Your task to perform on an android device: Open accessibility settings Image 0: 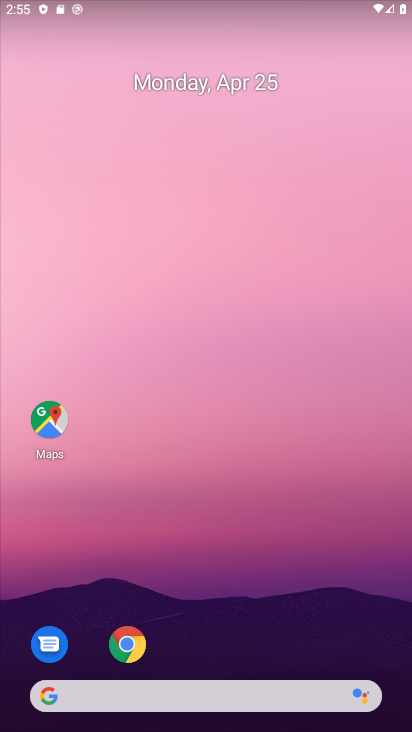
Step 0: click (138, 648)
Your task to perform on an android device: Open accessibility settings Image 1: 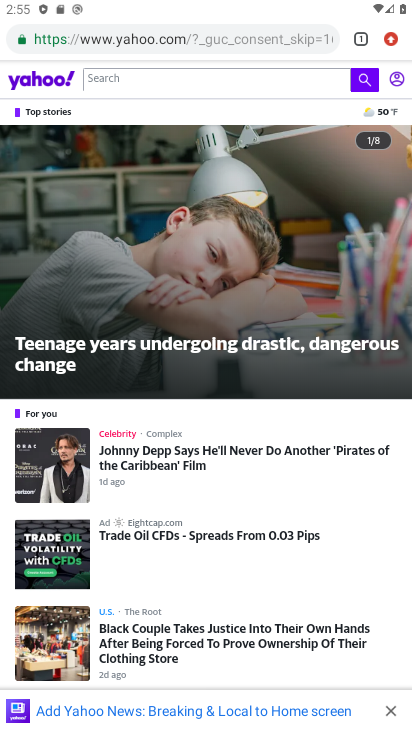
Step 1: drag from (390, 57) to (289, 516)
Your task to perform on an android device: Open accessibility settings Image 2: 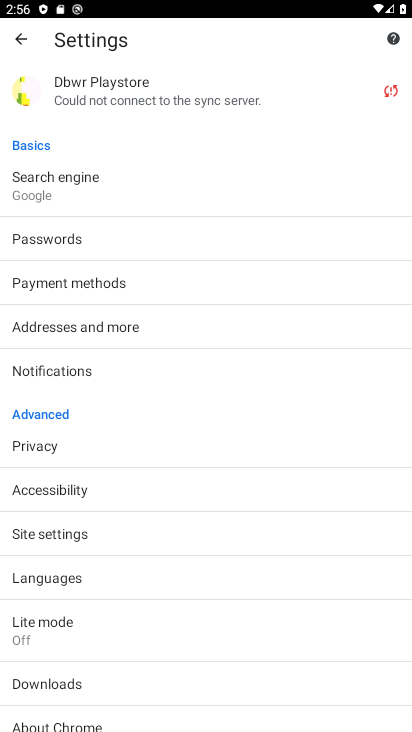
Step 2: click (201, 499)
Your task to perform on an android device: Open accessibility settings Image 3: 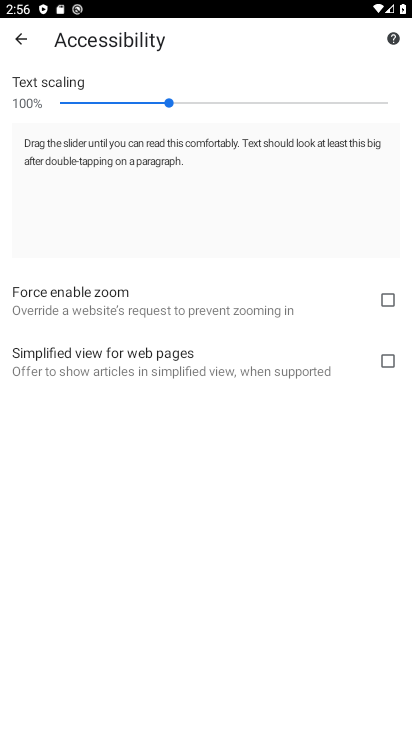
Step 3: task complete